Your task to perform on an android device: Search for razer kraken on target, select the first entry, and add it to the cart. Image 0: 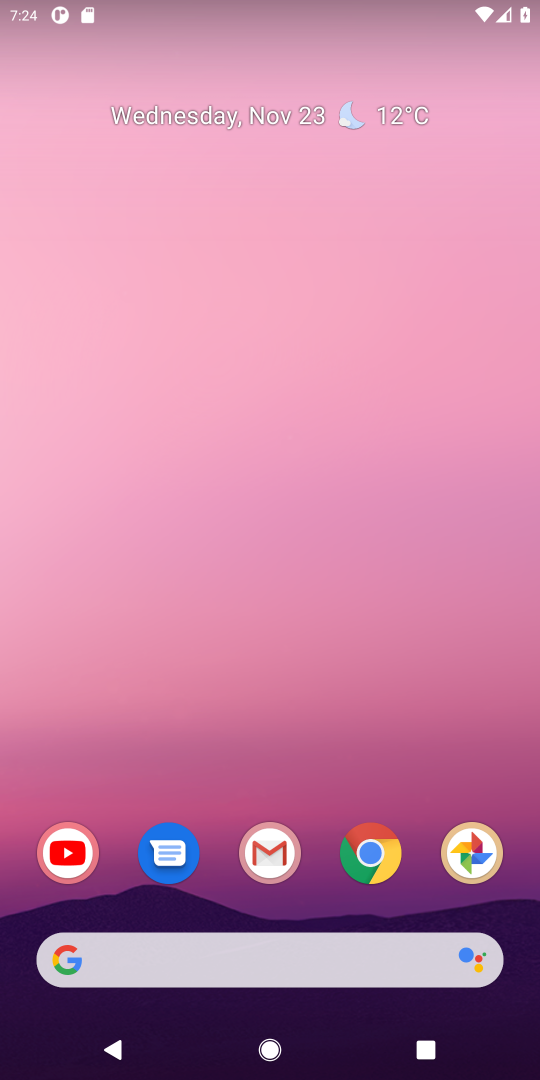
Step 0: click (376, 856)
Your task to perform on an android device: Search for razer kraken on target, select the first entry, and add it to the cart. Image 1: 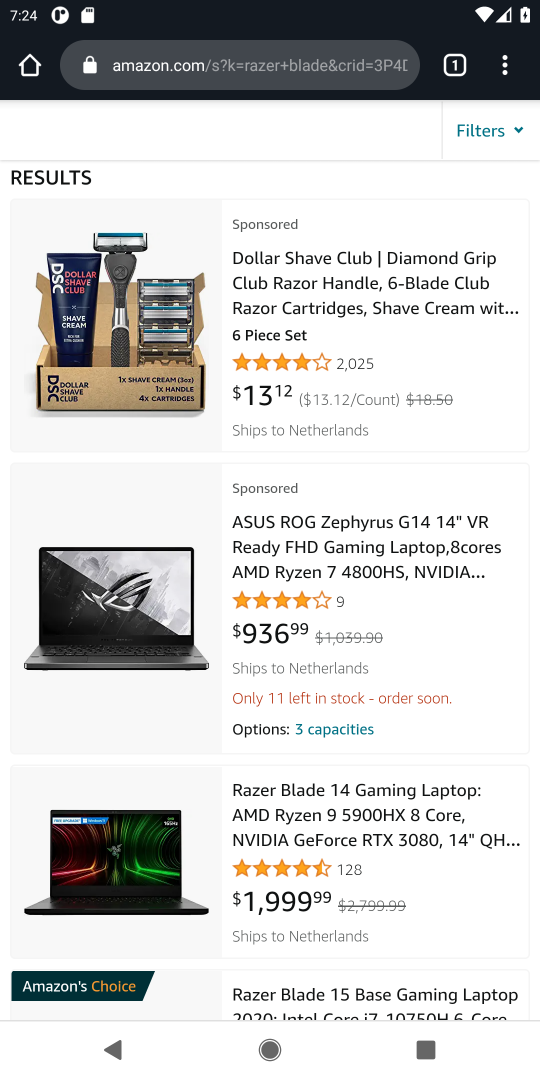
Step 1: click (237, 73)
Your task to perform on an android device: Search for razer kraken on target, select the first entry, and add it to the cart. Image 2: 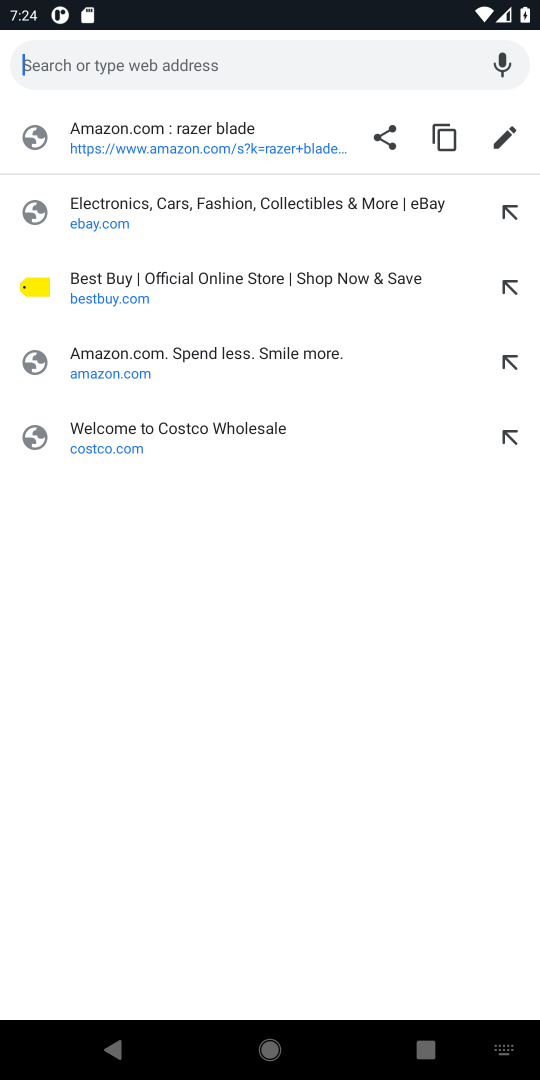
Step 2: type "target.com"
Your task to perform on an android device: Search for razer kraken on target, select the first entry, and add it to the cart. Image 3: 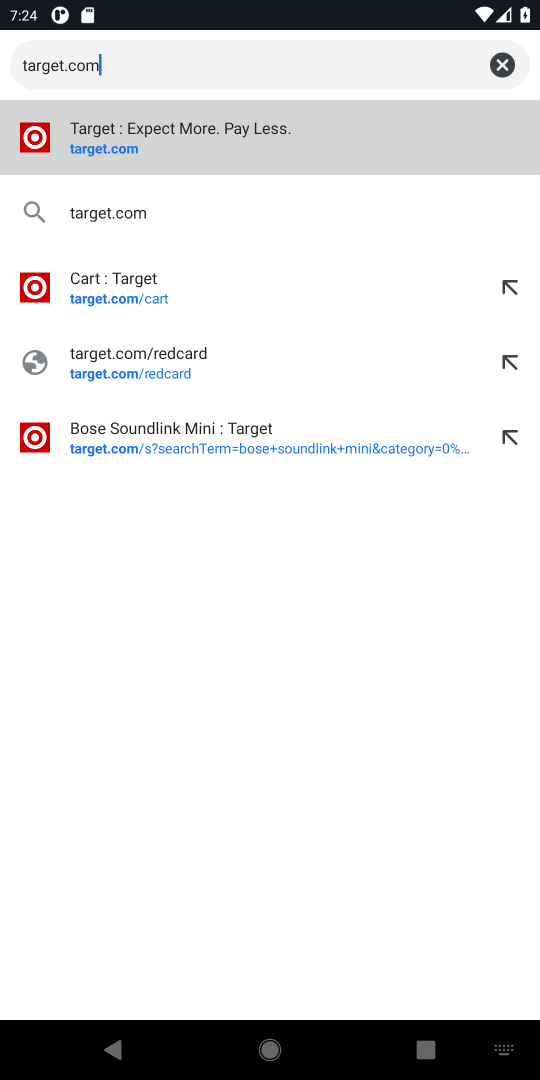
Step 3: click (99, 146)
Your task to perform on an android device: Search for razer kraken on target, select the first entry, and add it to the cart. Image 4: 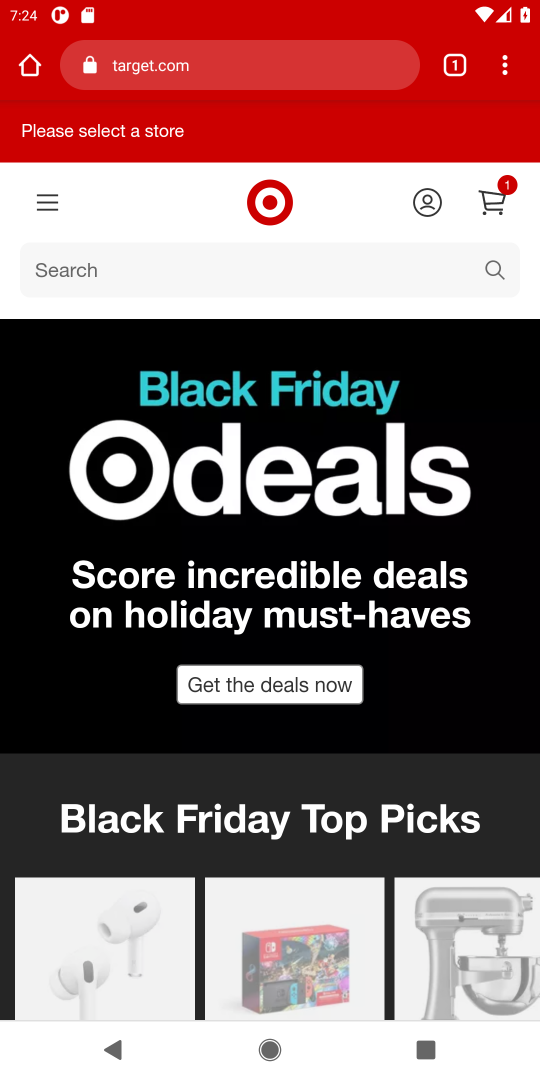
Step 4: click (498, 268)
Your task to perform on an android device: Search for razer kraken on target, select the first entry, and add it to the cart. Image 5: 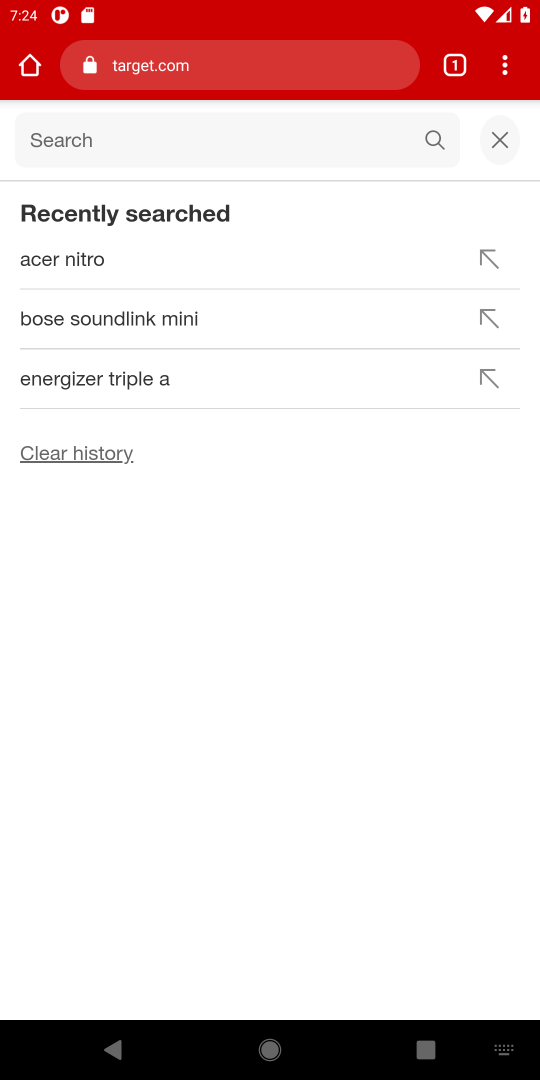
Step 5: type "razer kraken"
Your task to perform on an android device: Search for razer kraken on target, select the first entry, and add it to the cart. Image 6: 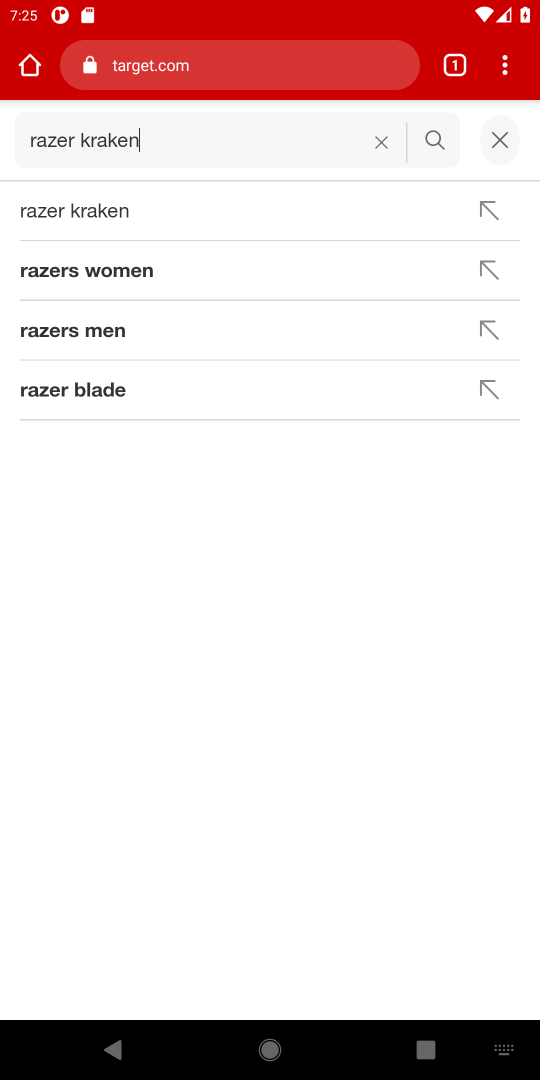
Step 6: click (82, 213)
Your task to perform on an android device: Search for razer kraken on target, select the first entry, and add it to the cart. Image 7: 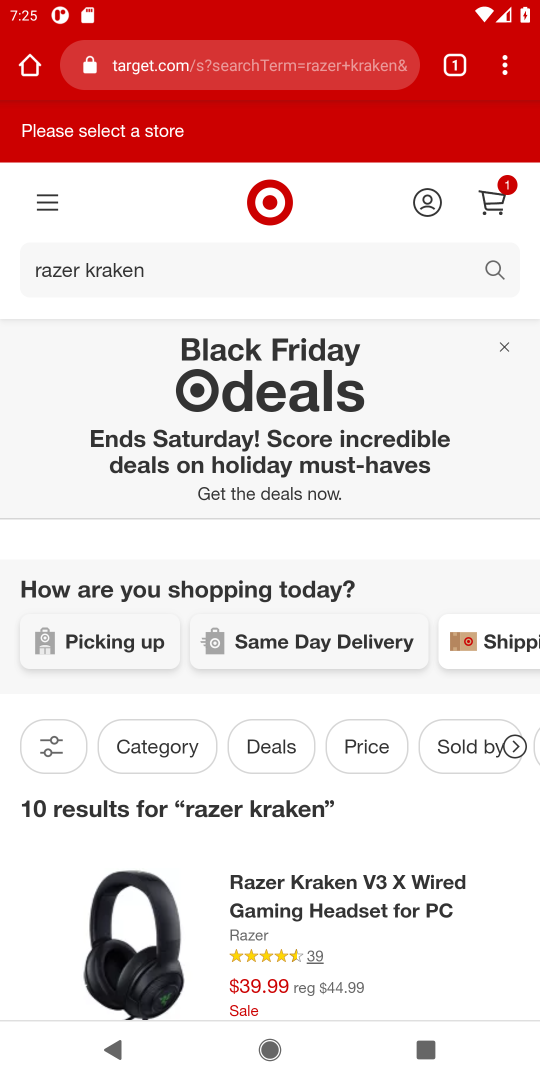
Step 7: drag from (235, 685) to (224, 387)
Your task to perform on an android device: Search for razer kraken on target, select the first entry, and add it to the cart. Image 8: 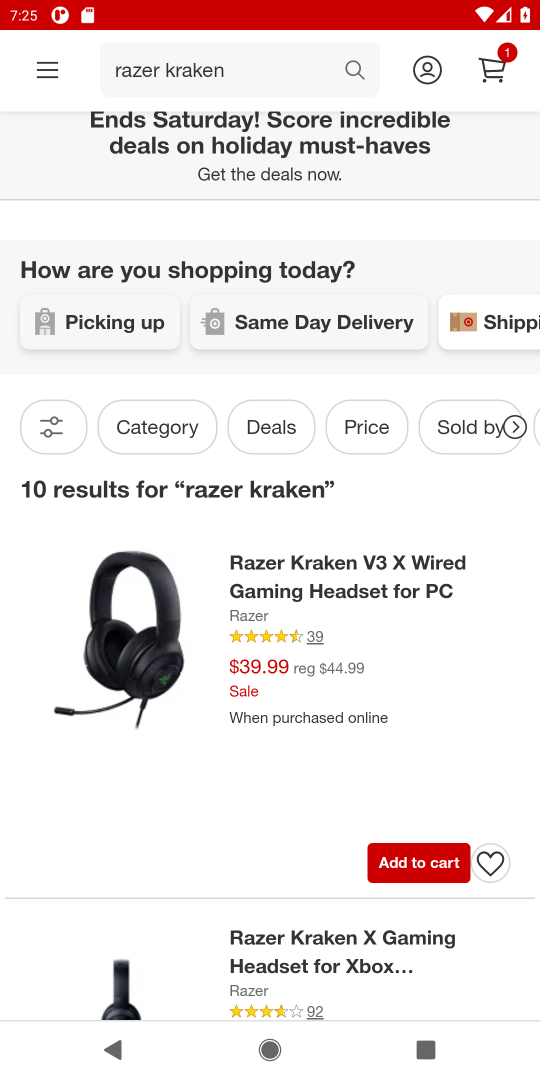
Step 8: click (415, 863)
Your task to perform on an android device: Search for razer kraken on target, select the first entry, and add it to the cart. Image 9: 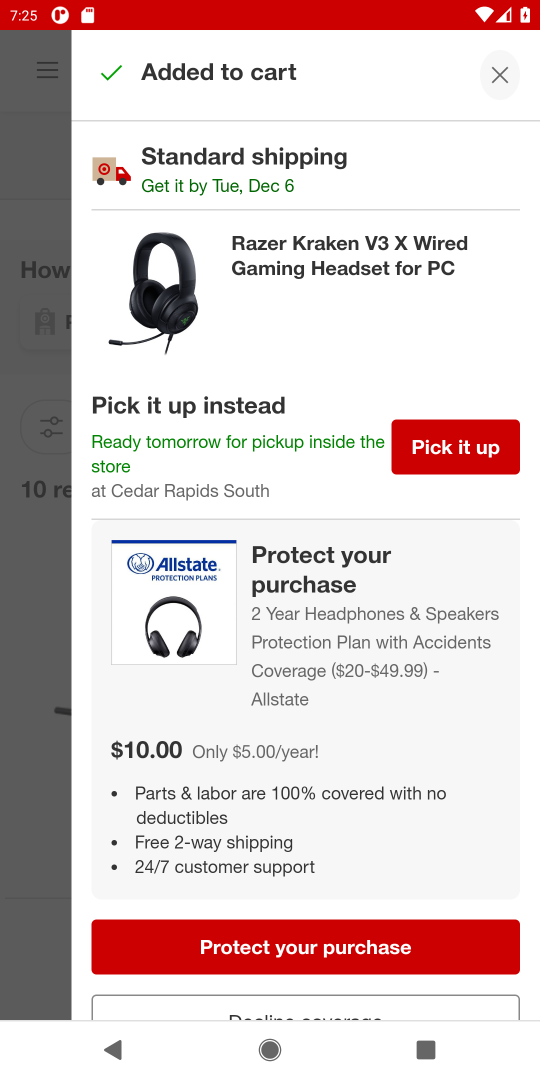
Step 9: task complete